Your task to perform on an android device: check google app version Image 0: 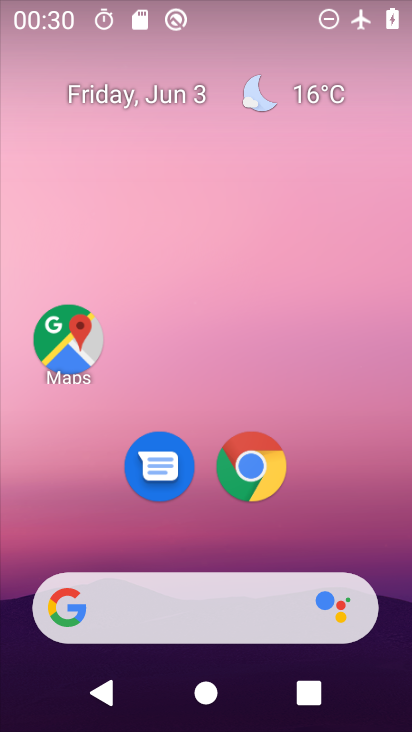
Step 0: drag from (218, 517) to (207, 198)
Your task to perform on an android device: check google app version Image 1: 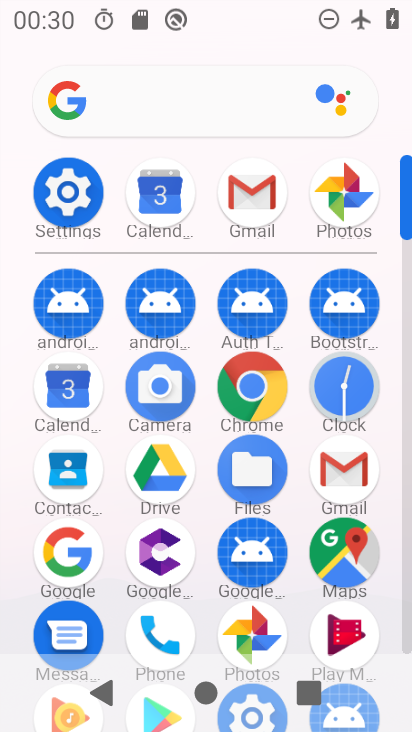
Step 1: click (70, 570)
Your task to perform on an android device: check google app version Image 2: 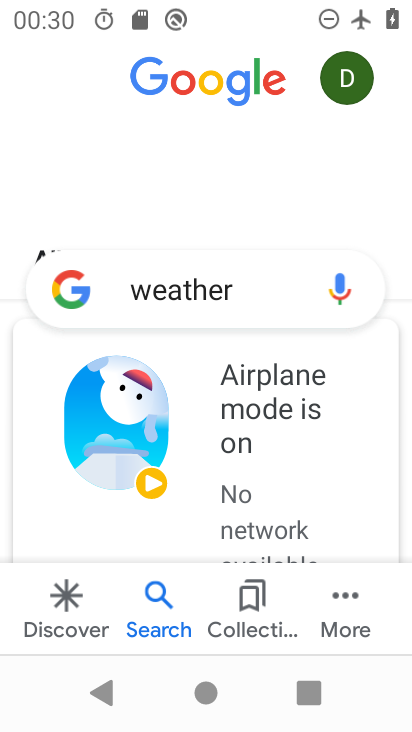
Step 2: click (346, 606)
Your task to perform on an android device: check google app version Image 3: 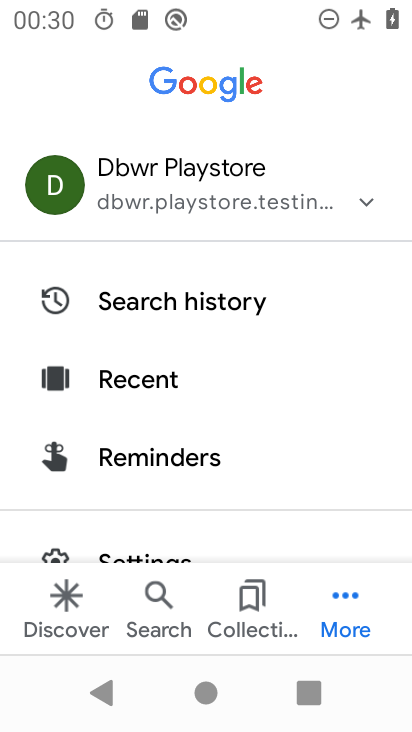
Step 3: drag from (172, 513) to (193, 316)
Your task to perform on an android device: check google app version Image 4: 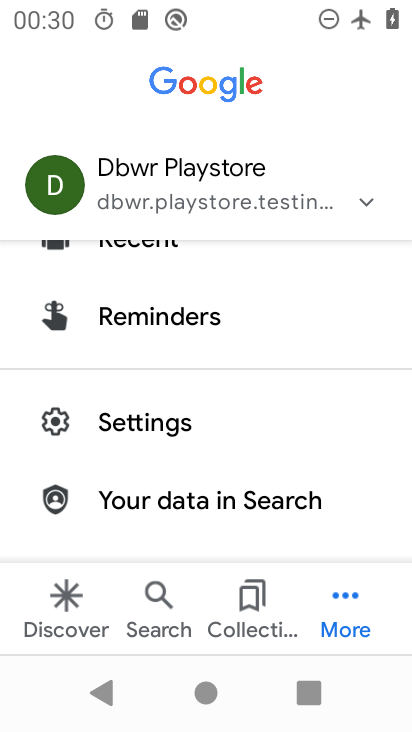
Step 4: click (154, 424)
Your task to perform on an android device: check google app version Image 5: 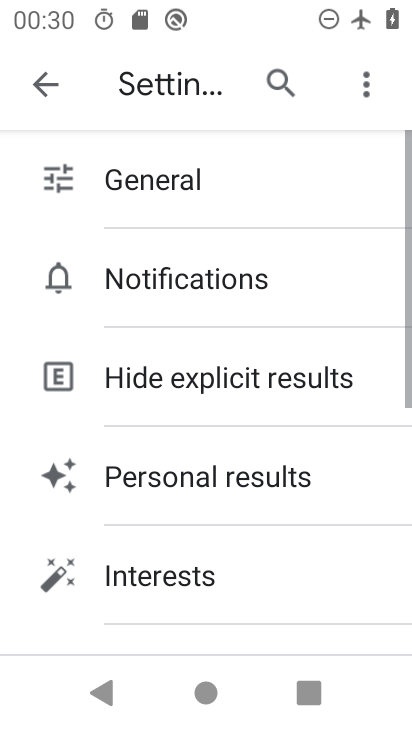
Step 5: click (175, 370)
Your task to perform on an android device: check google app version Image 6: 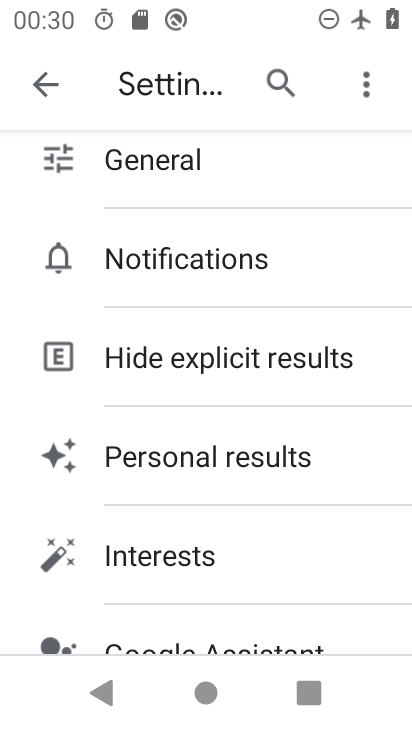
Step 6: drag from (204, 550) to (203, 332)
Your task to perform on an android device: check google app version Image 7: 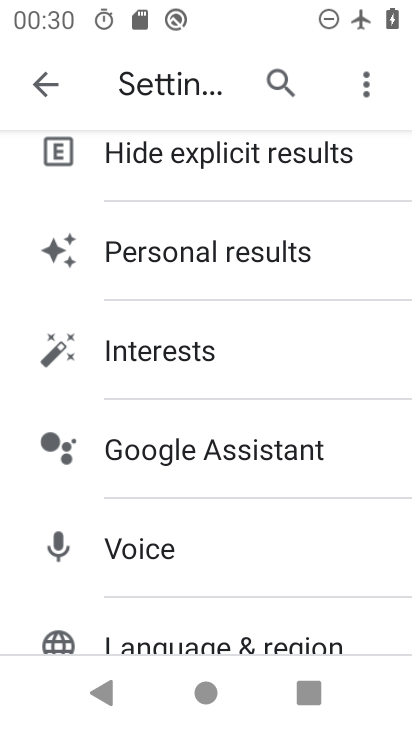
Step 7: drag from (210, 398) to (211, 316)
Your task to perform on an android device: check google app version Image 8: 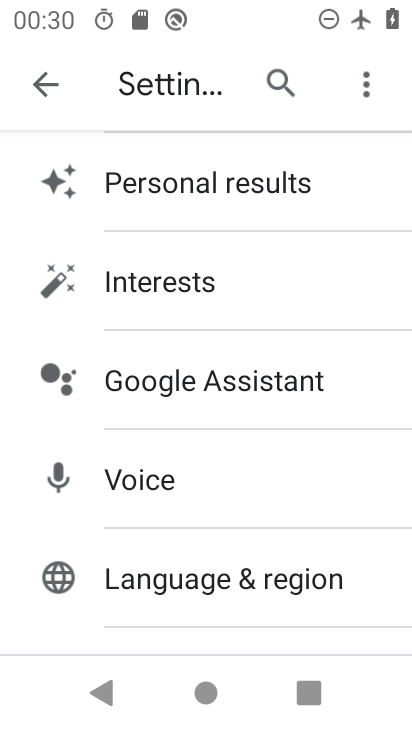
Step 8: drag from (189, 513) to (230, 265)
Your task to perform on an android device: check google app version Image 9: 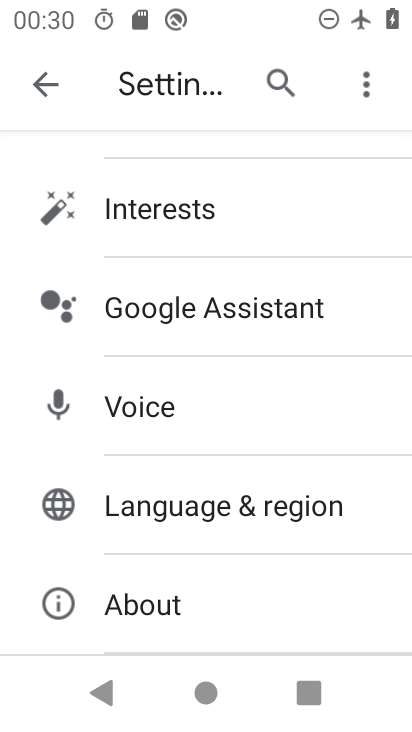
Step 9: drag from (186, 592) to (215, 386)
Your task to perform on an android device: check google app version Image 10: 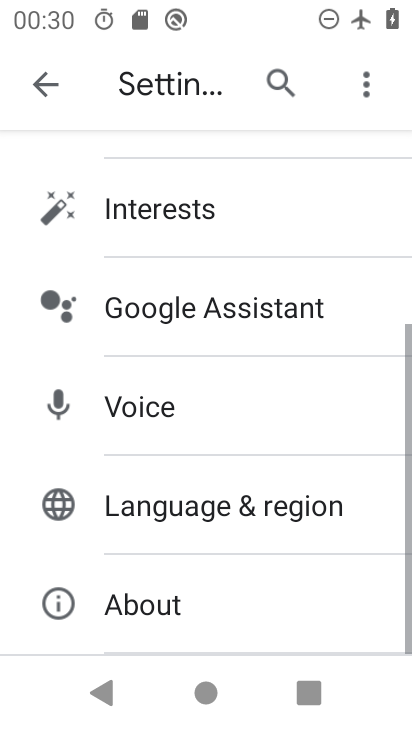
Step 10: click (172, 588)
Your task to perform on an android device: check google app version Image 11: 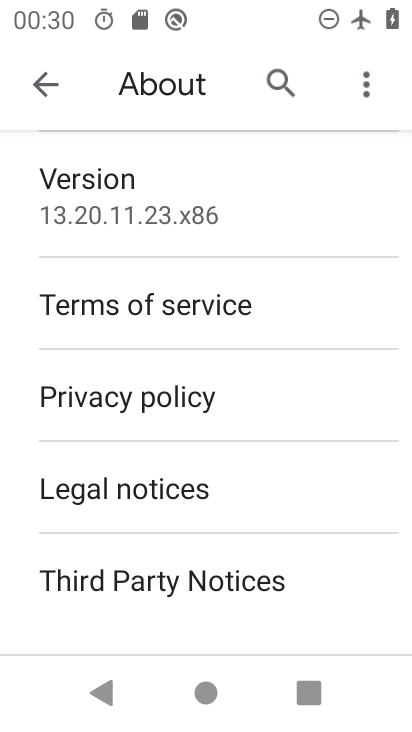
Step 11: click (119, 220)
Your task to perform on an android device: check google app version Image 12: 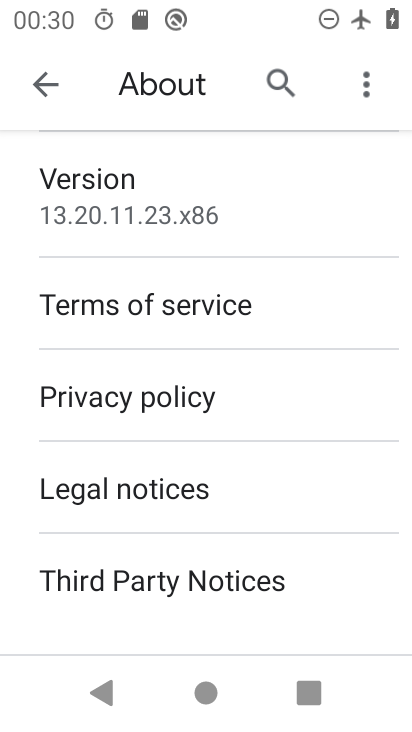
Step 12: click (298, 194)
Your task to perform on an android device: check google app version Image 13: 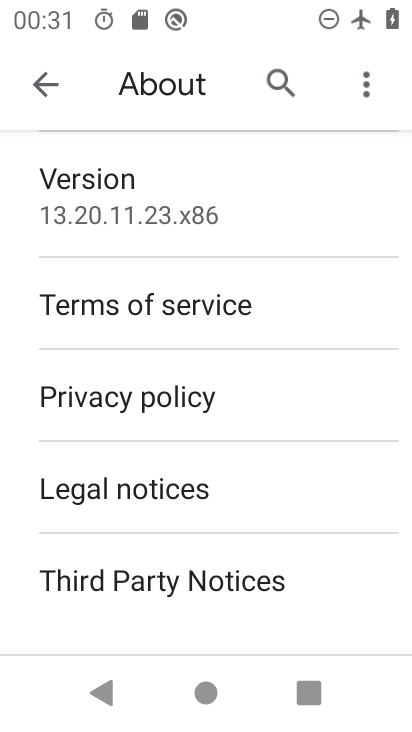
Step 13: task complete